Your task to perform on an android device: set the timer Image 0: 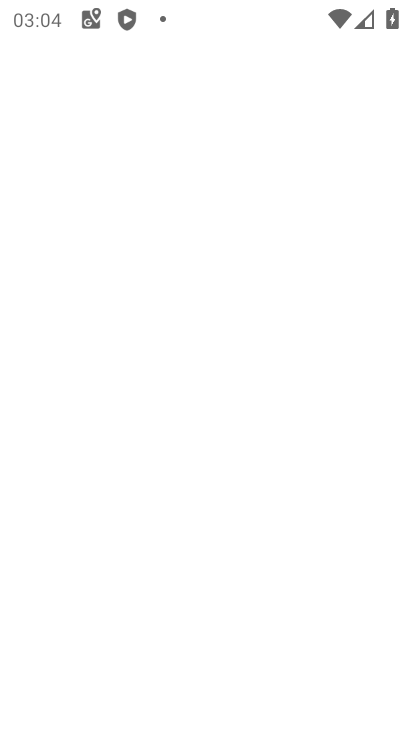
Step 0: press home button
Your task to perform on an android device: set the timer Image 1: 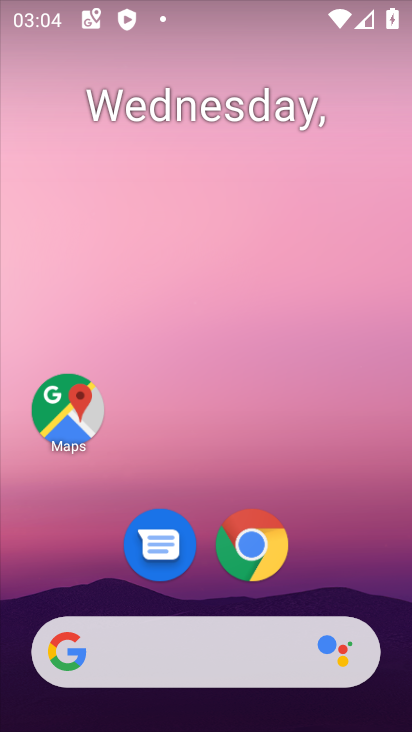
Step 1: drag from (165, 647) to (324, 107)
Your task to perform on an android device: set the timer Image 2: 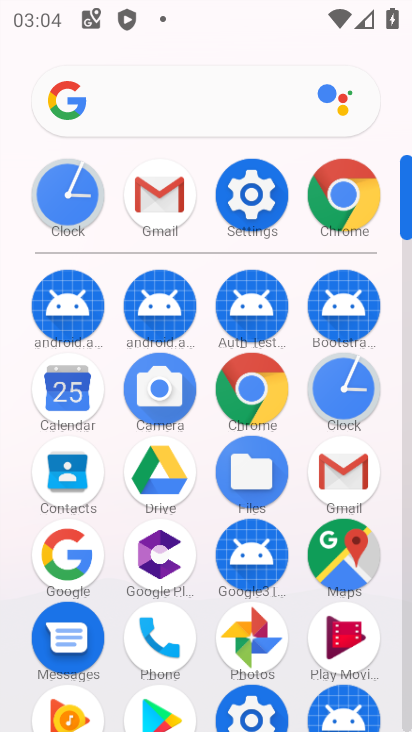
Step 2: click (357, 401)
Your task to perform on an android device: set the timer Image 3: 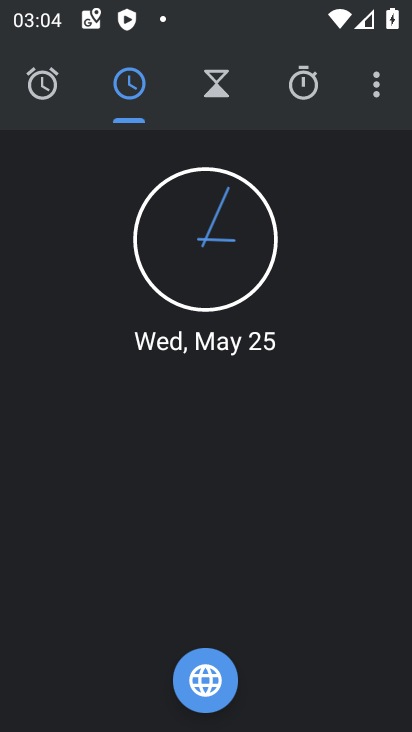
Step 3: click (219, 76)
Your task to perform on an android device: set the timer Image 4: 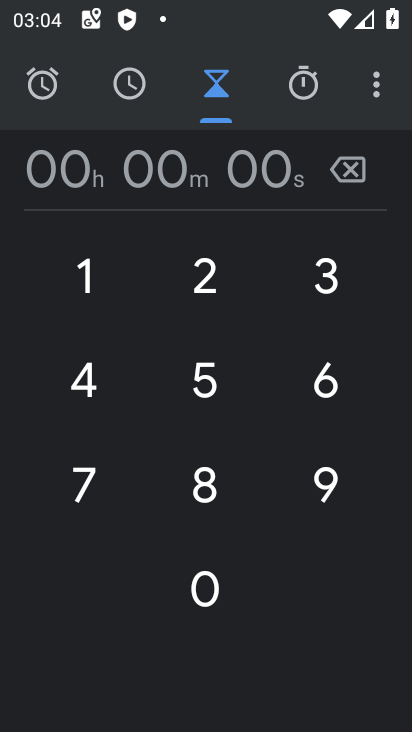
Step 4: click (89, 283)
Your task to perform on an android device: set the timer Image 5: 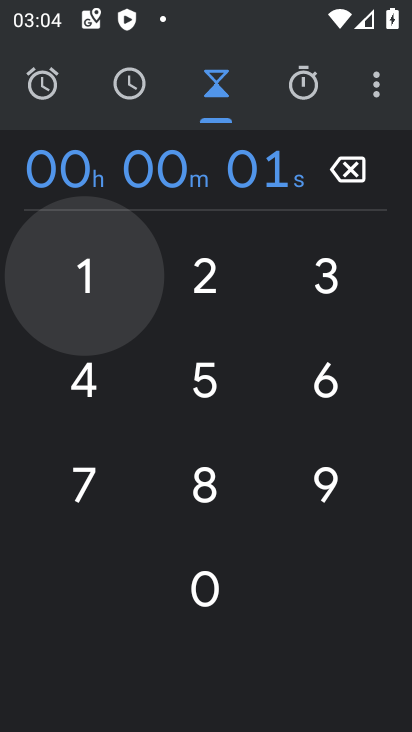
Step 5: click (201, 281)
Your task to perform on an android device: set the timer Image 6: 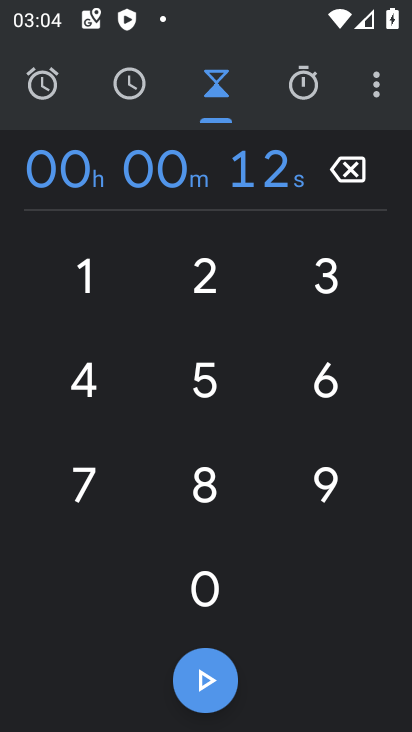
Step 6: click (205, 678)
Your task to perform on an android device: set the timer Image 7: 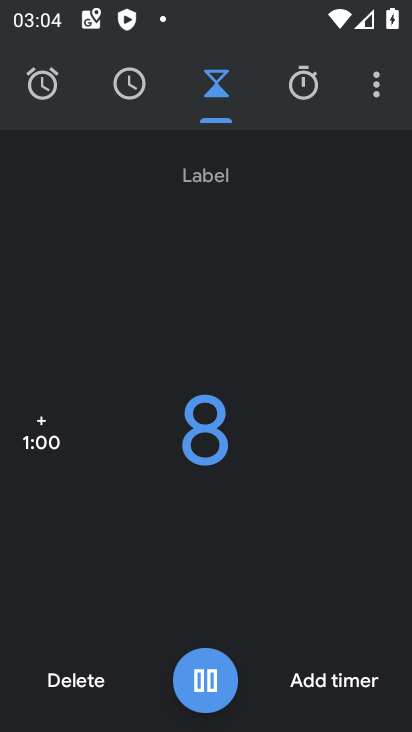
Step 7: click (213, 676)
Your task to perform on an android device: set the timer Image 8: 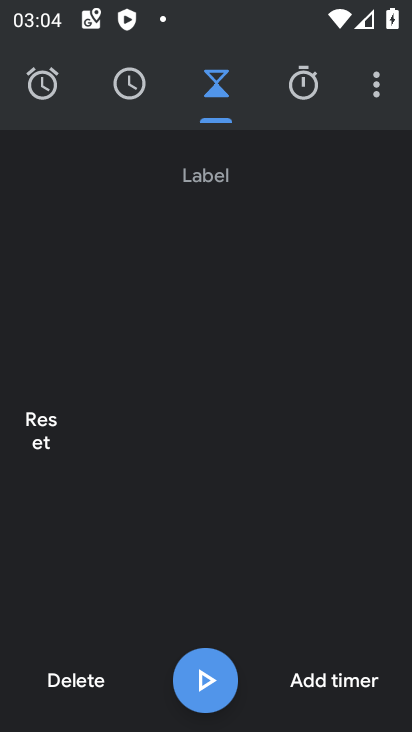
Step 8: task complete